Your task to perform on an android device: Search for pizza restaurants on Maps Image 0: 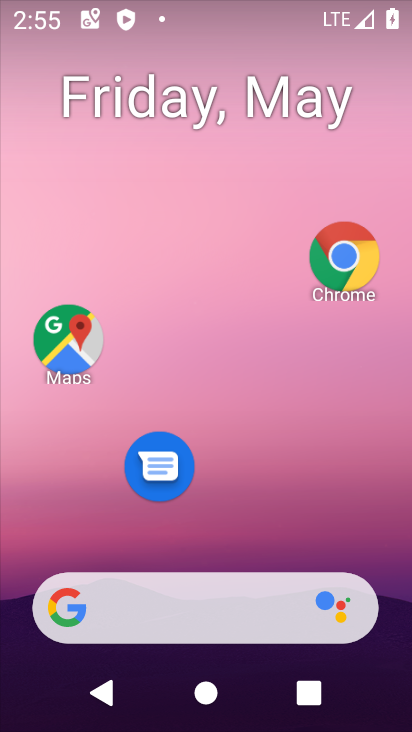
Step 0: click (66, 335)
Your task to perform on an android device: Search for pizza restaurants on Maps Image 1: 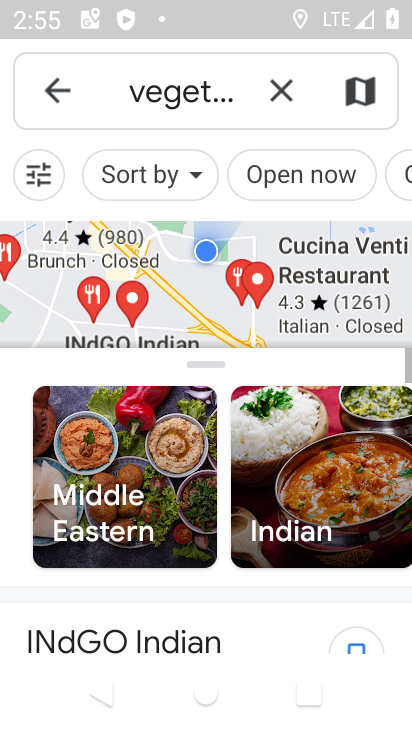
Step 1: click (279, 83)
Your task to perform on an android device: Search for pizza restaurants on Maps Image 2: 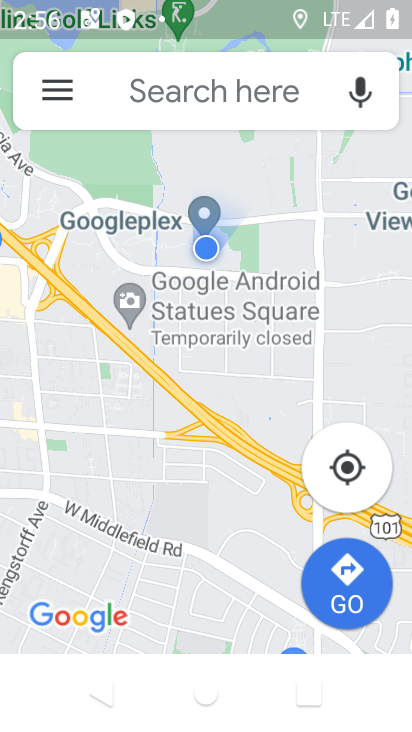
Step 2: click (225, 100)
Your task to perform on an android device: Search for pizza restaurants on Maps Image 3: 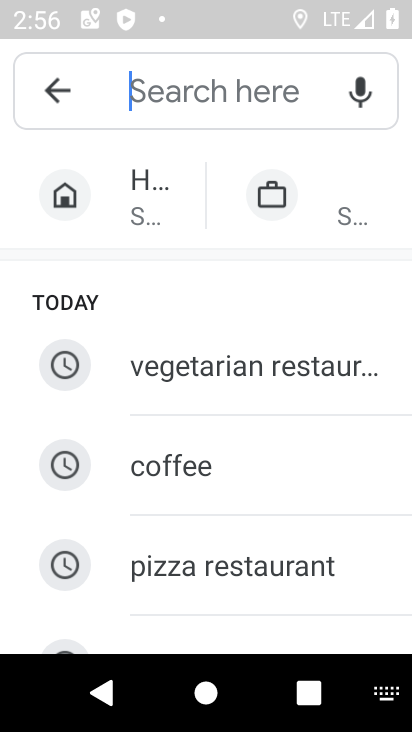
Step 3: type " pizza restaurants "
Your task to perform on an android device: Search for pizza restaurants on Maps Image 4: 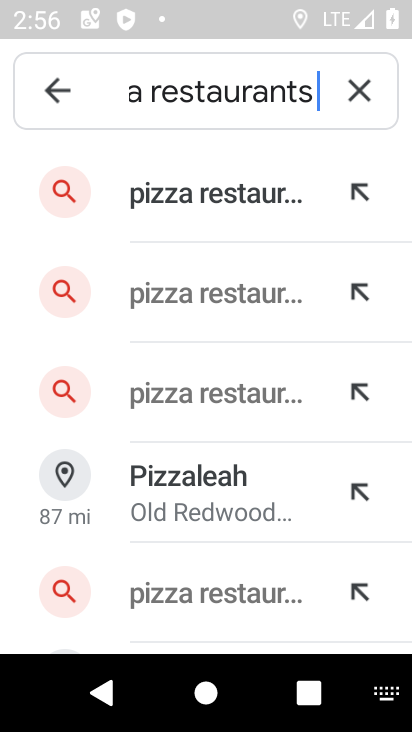
Step 4: click (234, 208)
Your task to perform on an android device: Search for pizza restaurants on Maps Image 5: 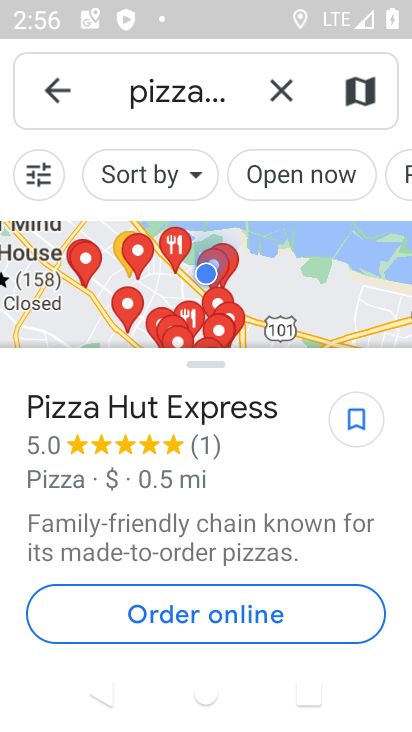
Step 5: task complete